Your task to perform on an android device: Go to network settings Image 0: 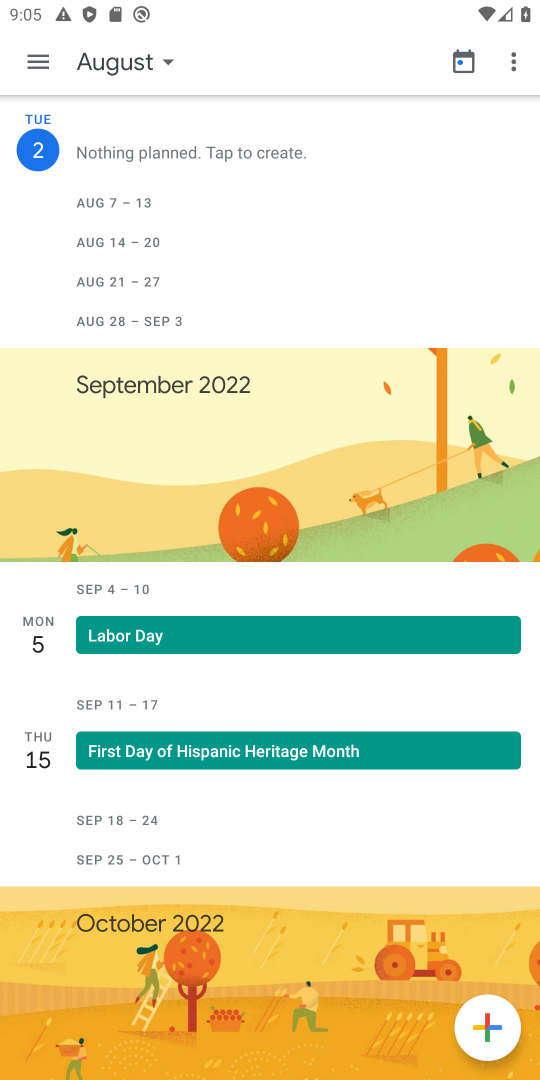
Step 0: press home button
Your task to perform on an android device: Go to network settings Image 1: 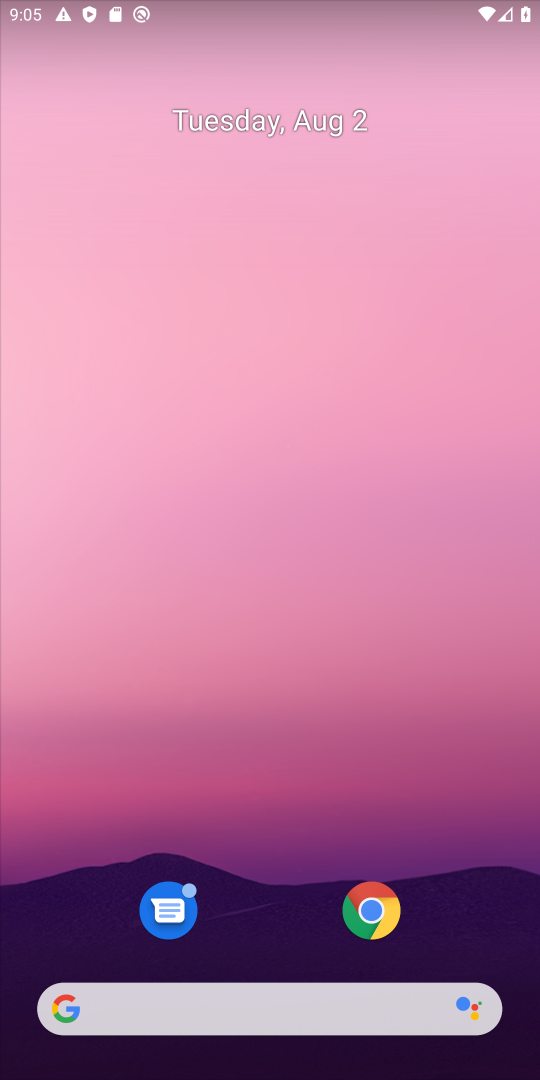
Step 1: drag from (240, 1001) to (355, 199)
Your task to perform on an android device: Go to network settings Image 2: 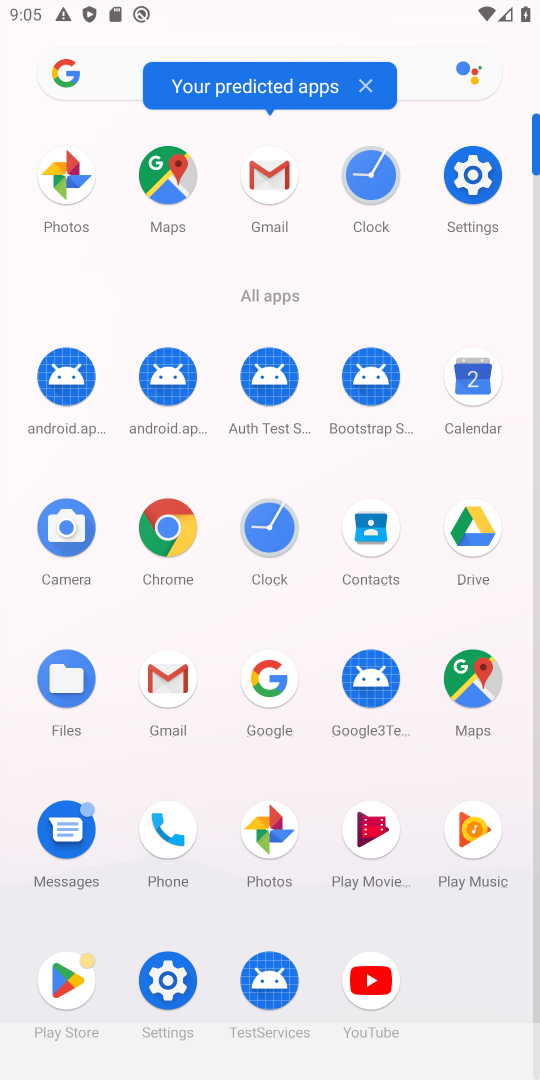
Step 2: click (464, 174)
Your task to perform on an android device: Go to network settings Image 3: 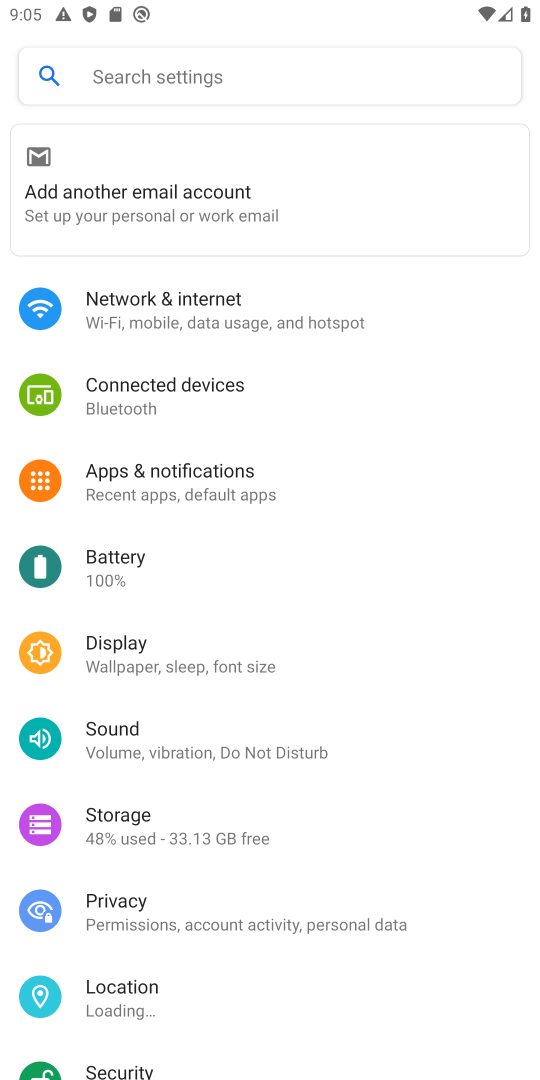
Step 3: click (166, 156)
Your task to perform on an android device: Go to network settings Image 4: 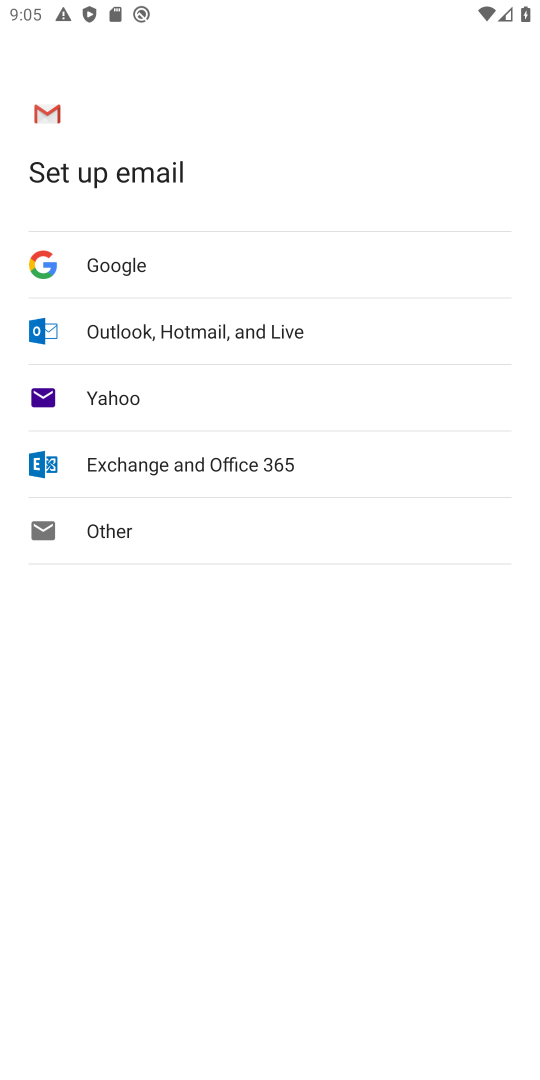
Step 4: press back button
Your task to perform on an android device: Go to network settings Image 5: 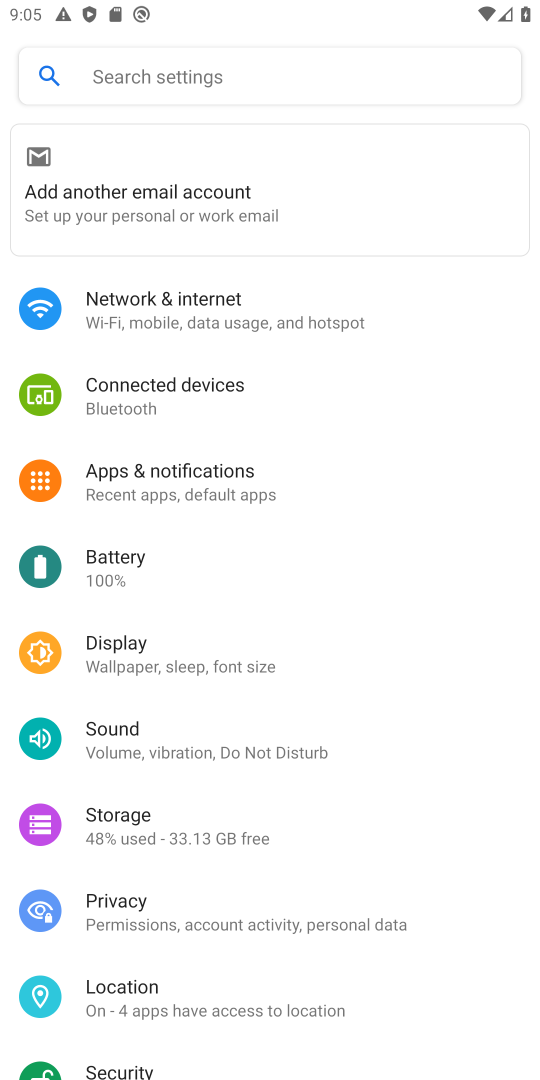
Step 5: click (184, 205)
Your task to perform on an android device: Go to network settings Image 6: 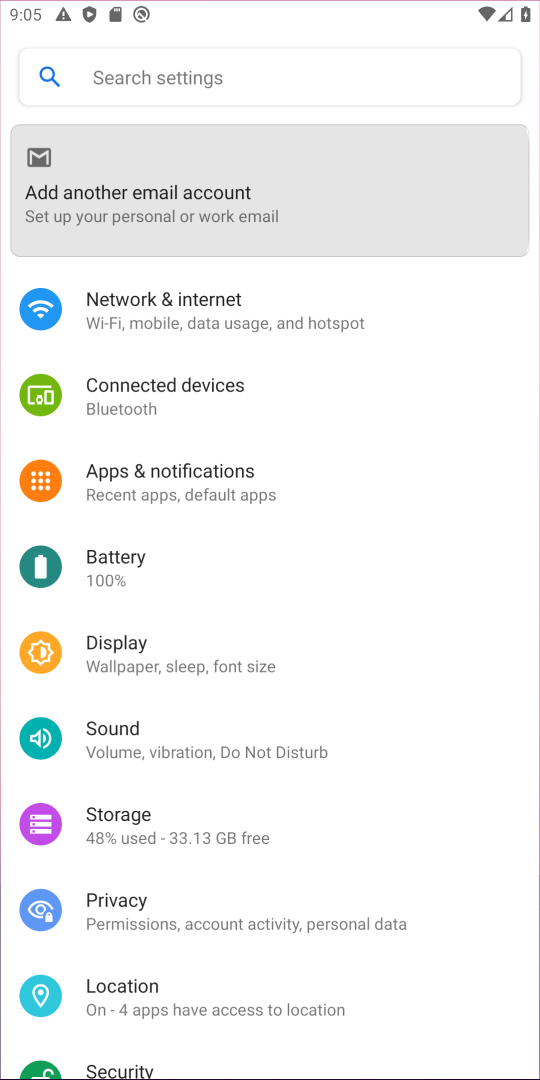
Step 6: click (184, 333)
Your task to perform on an android device: Go to network settings Image 7: 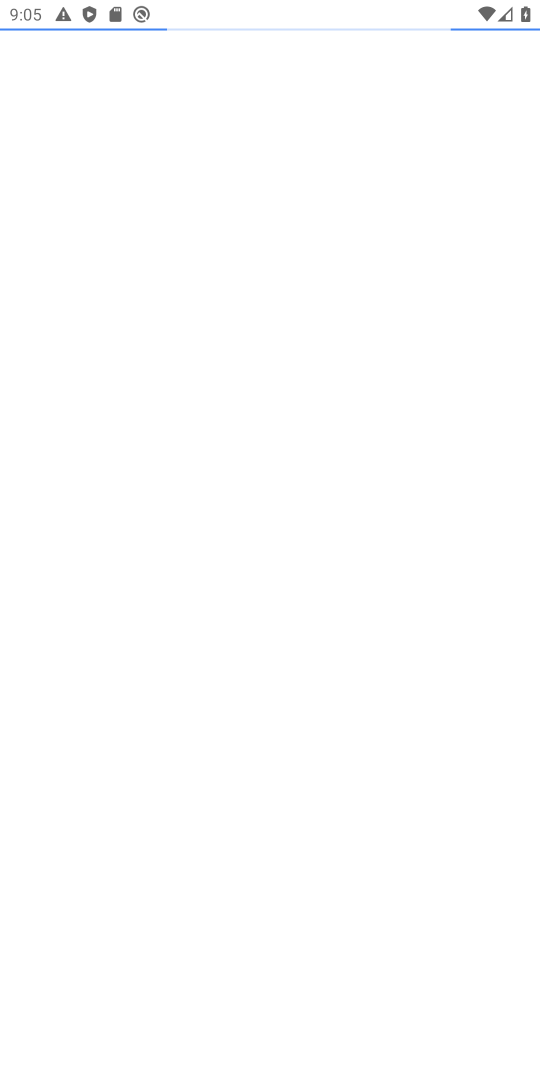
Step 7: press back button
Your task to perform on an android device: Go to network settings Image 8: 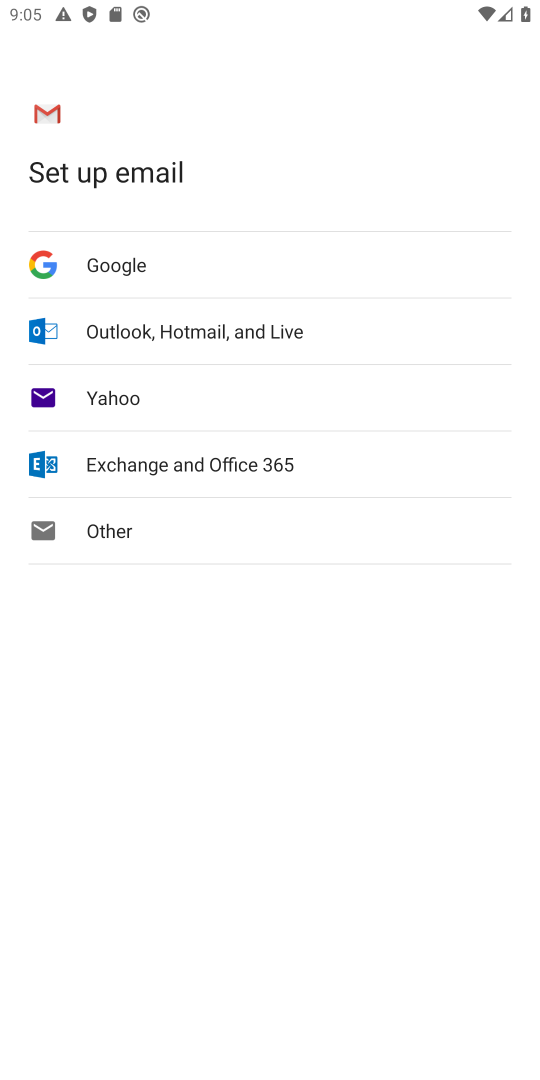
Step 8: press back button
Your task to perform on an android device: Go to network settings Image 9: 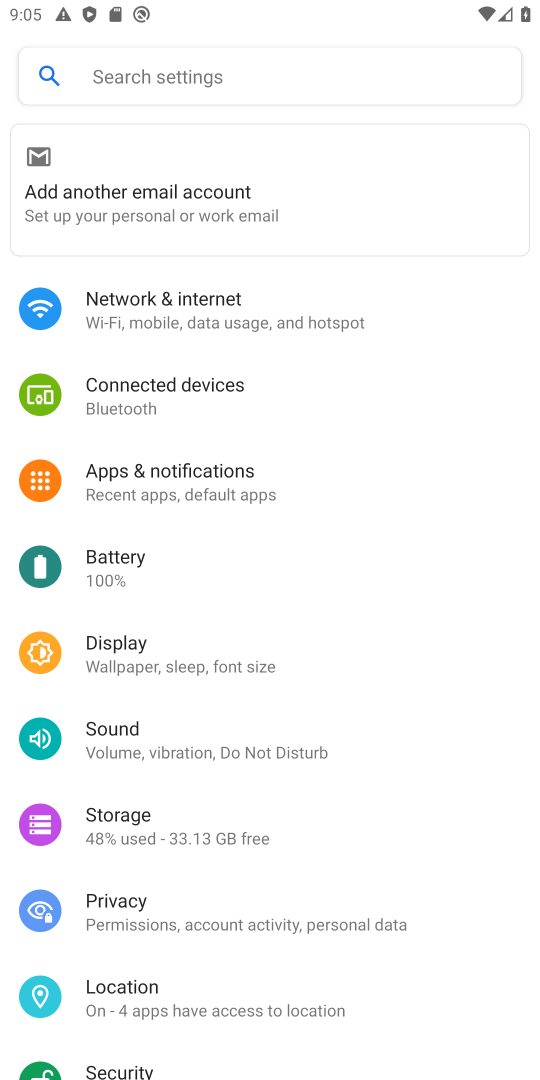
Step 9: click (157, 301)
Your task to perform on an android device: Go to network settings Image 10: 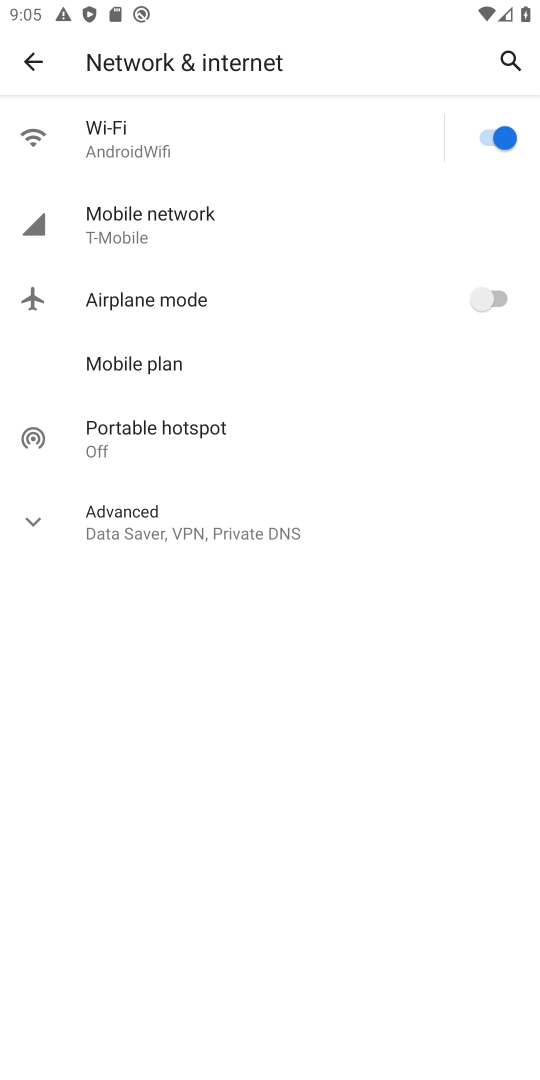
Step 10: task complete